Your task to perform on an android device: turn vacation reply on in the gmail app Image 0: 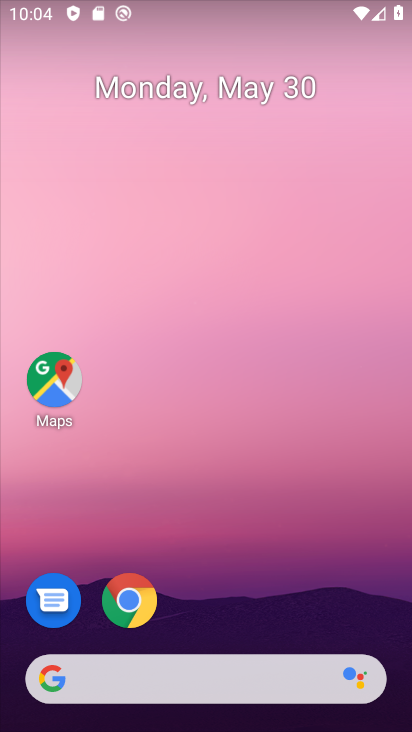
Step 0: drag from (180, 629) to (305, 49)
Your task to perform on an android device: turn vacation reply on in the gmail app Image 1: 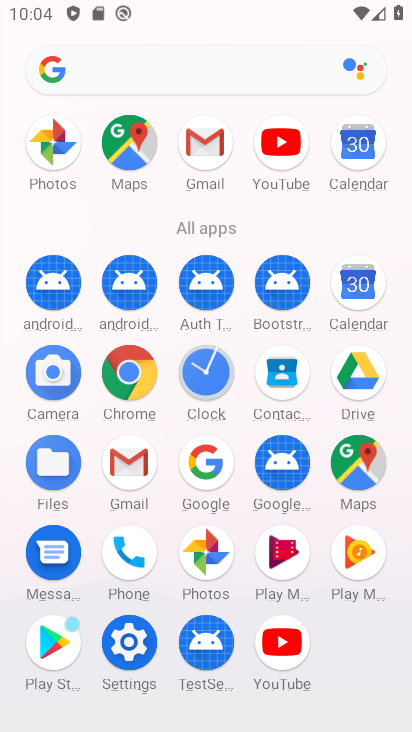
Step 1: drag from (224, 548) to (278, 272)
Your task to perform on an android device: turn vacation reply on in the gmail app Image 2: 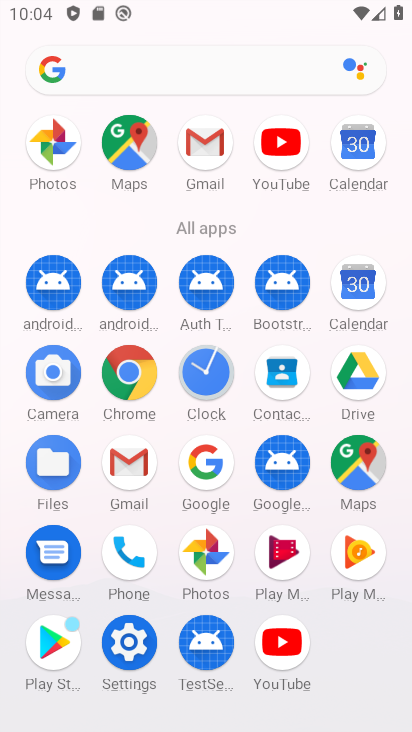
Step 2: click (135, 478)
Your task to perform on an android device: turn vacation reply on in the gmail app Image 3: 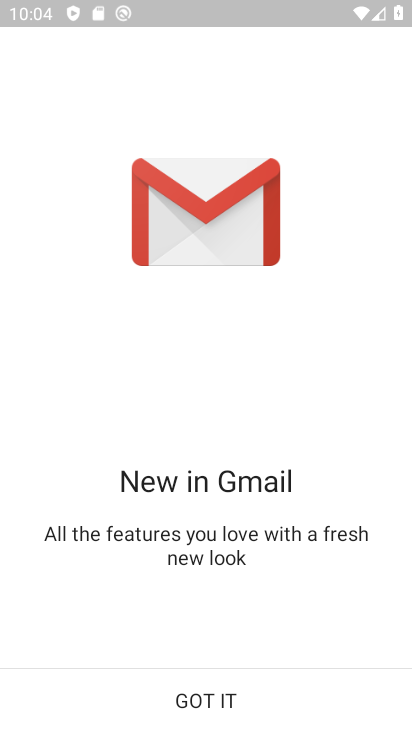
Step 3: click (224, 697)
Your task to perform on an android device: turn vacation reply on in the gmail app Image 4: 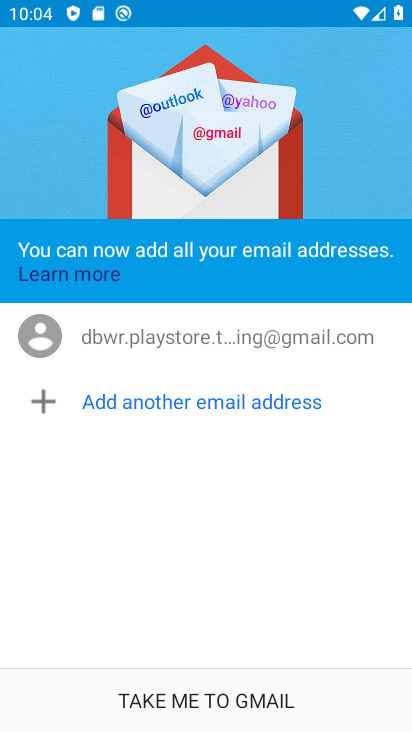
Step 4: click (279, 712)
Your task to perform on an android device: turn vacation reply on in the gmail app Image 5: 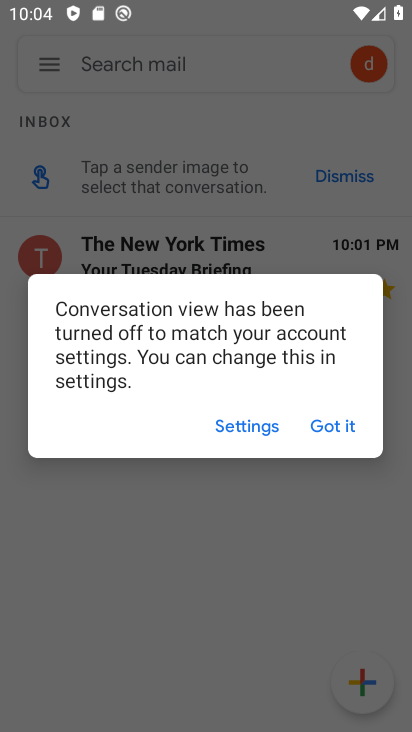
Step 5: click (340, 422)
Your task to perform on an android device: turn vacation reply on in the gmail app Image 6: 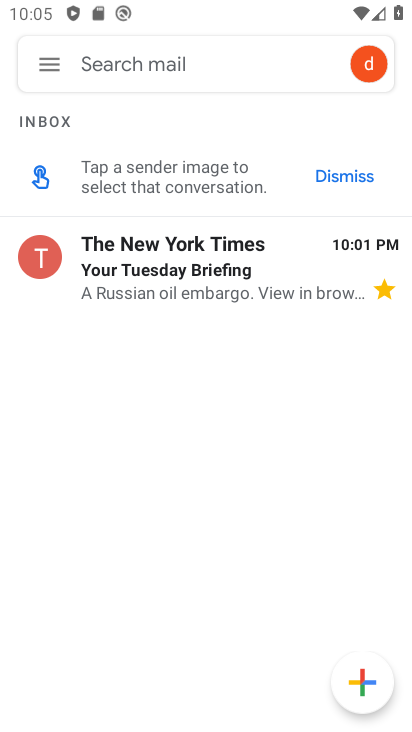
Step 6: click (63, 73)
Your task to perform on an android device: turn vacation reply on in the gmail app Image 7: 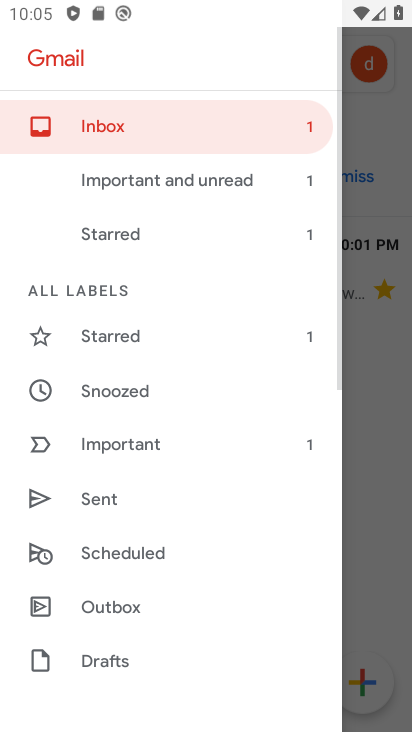
Step 7: drag from (84, 571) to (196, 205)
Your task to perform on an android device: turn vacation reply on in the gmail app Image 8: 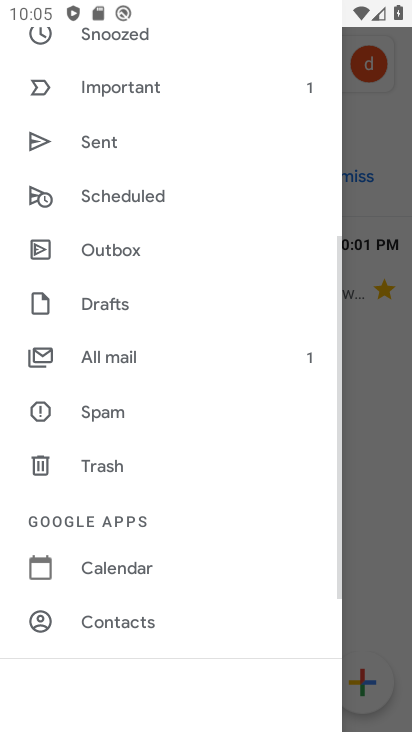
Step 8: drag from (154, 630) to (199, 289)
Your task to perform on an android device: turn vacation reply on in the gmail app Image 9: 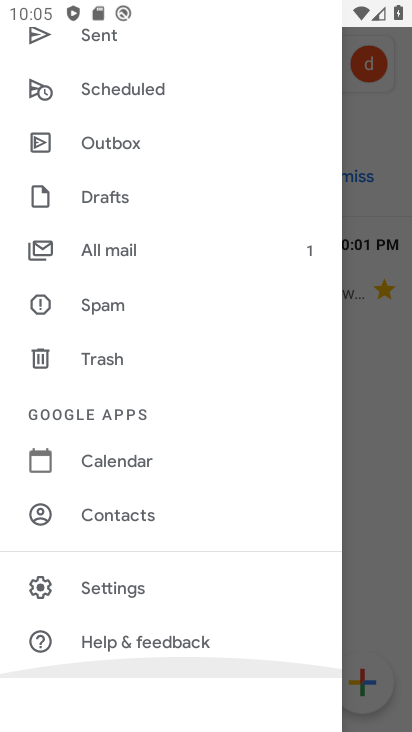
Step 9: click (122, 591)
Your task to perform on an android device: turn vacation reply on in the gmail app Image 10: 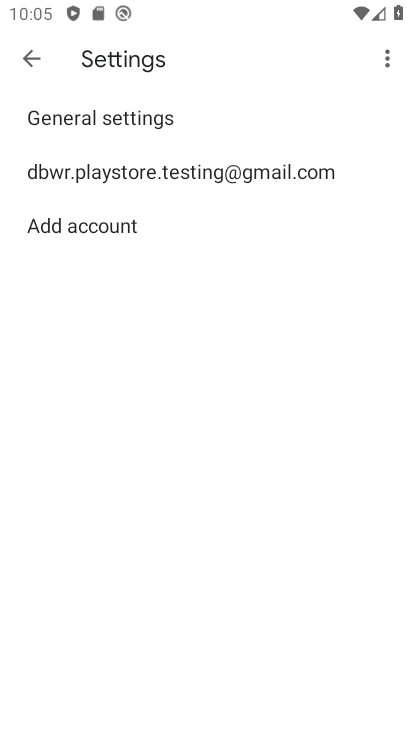
Step 10: click (237, 178)
Your task to perform on an android device: turn vacation reply on in the gmail app Image 11: 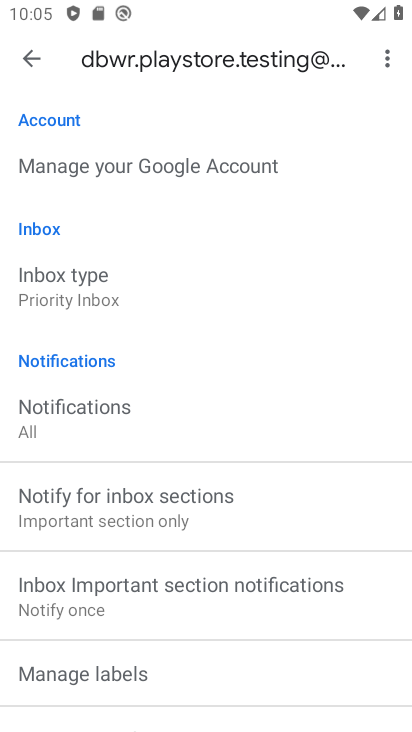
Step 11: drag from (144, 539) to (248, 127)
Your task to perform on an android device: turn vacation reply on in the gmail app Image 12: 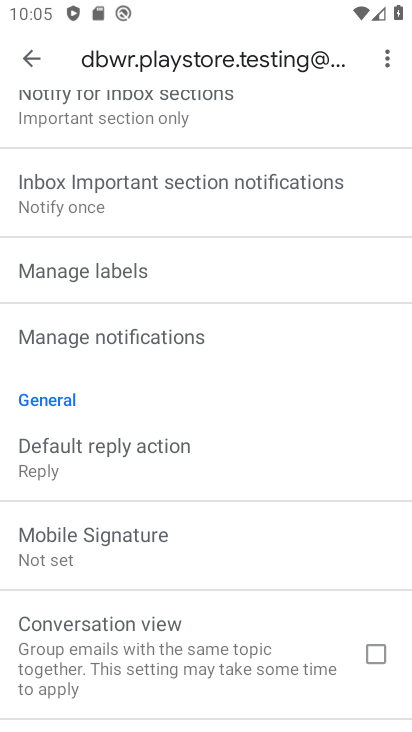
Step 12: drag from (156, 606) to (249, 228)
Your task to perform on an android device: turn vacation reply on in the gmail app Image 13: 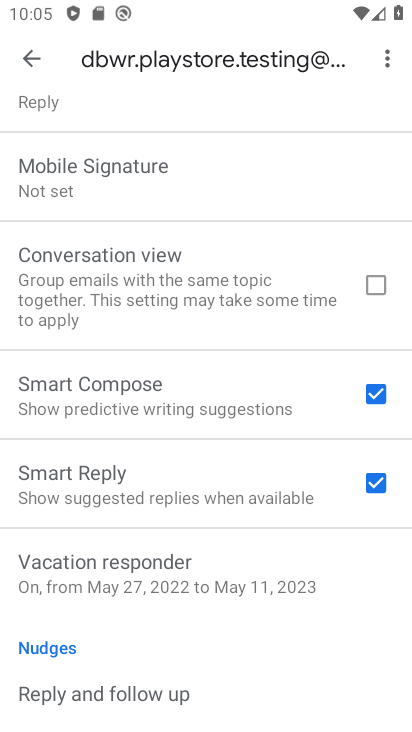
Step 13: click (189, 574)
Your task to perform on an android device: turn vacation reply on in the gmail app Image 14: 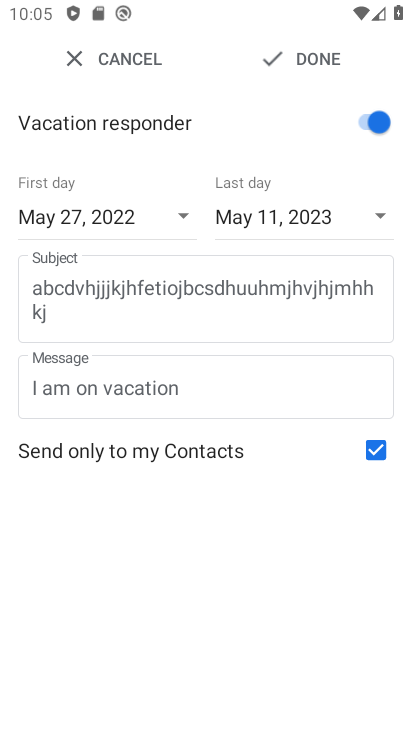
Step 14: task complete